Your task to perform on an android device: turn on the 24-hour format for clock Image 0: 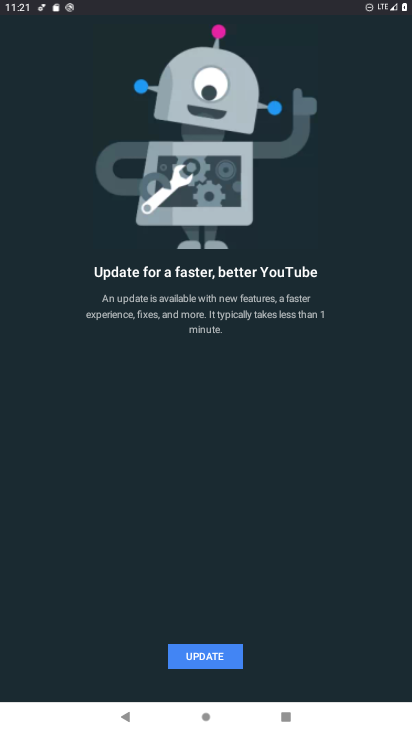
Step 0: drag from (192, 672) to (172, 317)
Your task to perform on an android device: turn on the 24-hour format for clock Image 1: 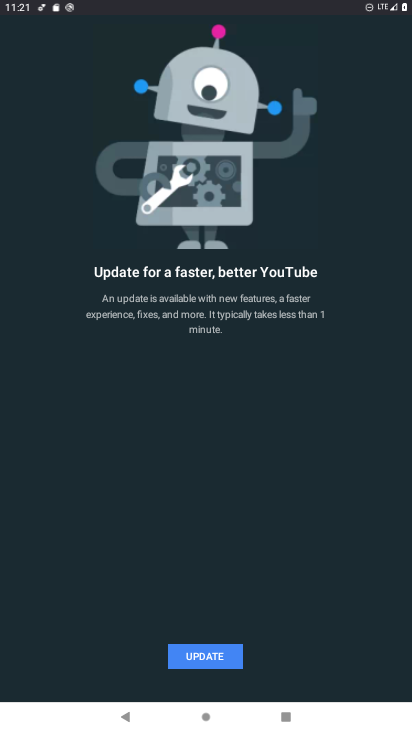
Step 1: press home button
Your task to perform on an android device: turn on the 24-hour format for clock Image 2: 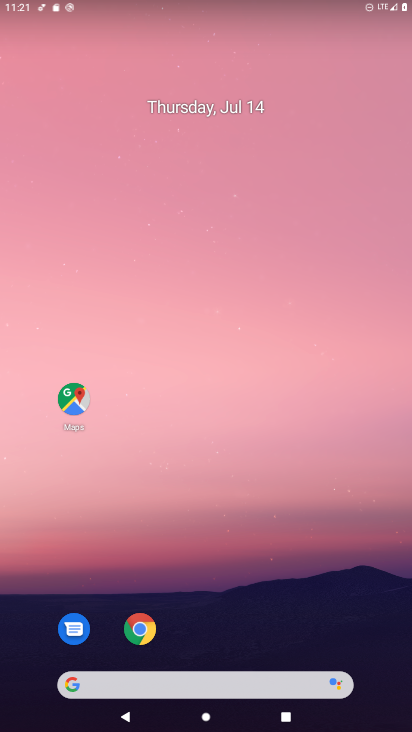
Step 2: drag from (184, 611) to (287, 74)
Your task to perform on an android device: turn on the 24-hour format for clock Image 3: 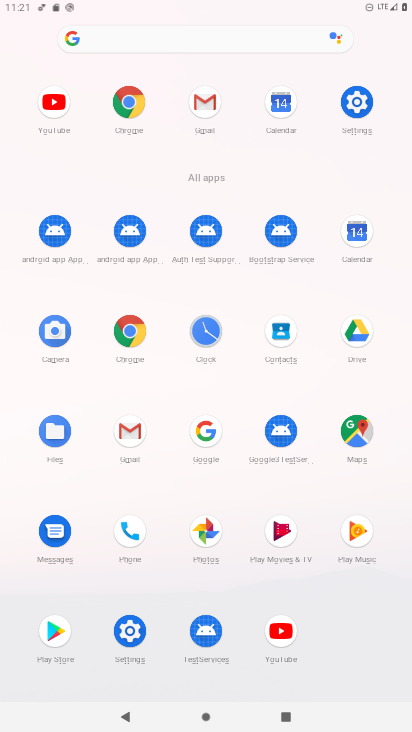
Step 3: click (207, 340)
Your task to perform on an android device: turn on the 24-hour format for clock Image 4: 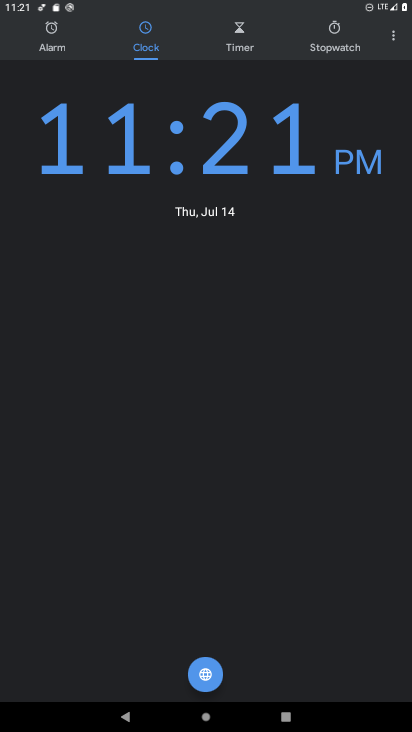
Step 4: click (398, 31)
Your task to perform on an android device: turn on the 24-hour format for clock Image 5: 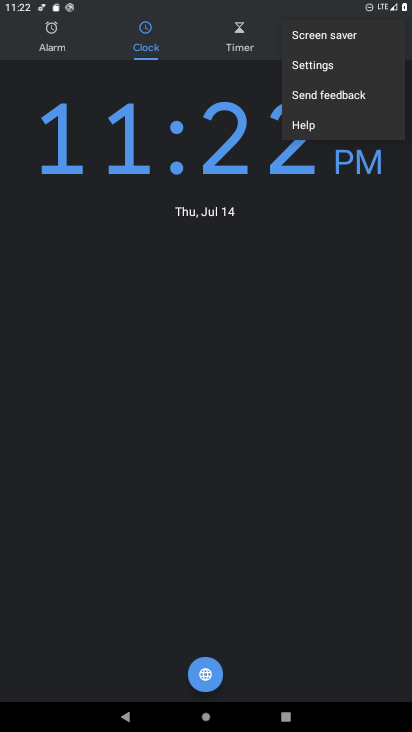
Step 5: click (315, 73)
Your task to perform on an android device: turn on the 24-hour format for clock Image 6: 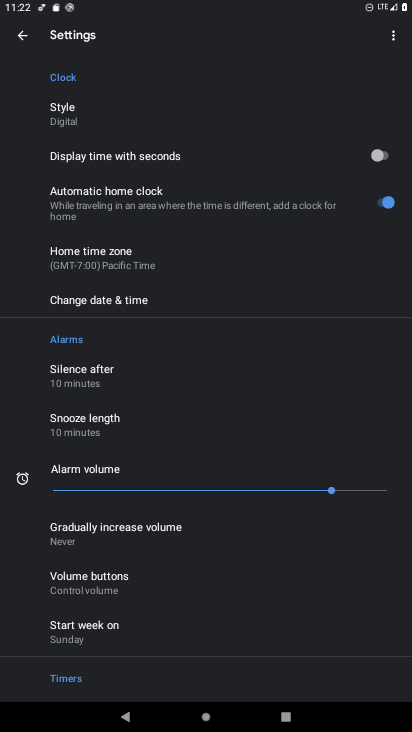
Step 6: click (130, 298)
Your task to perform on an android device: turn on the 24-hour format for clock Image 7: 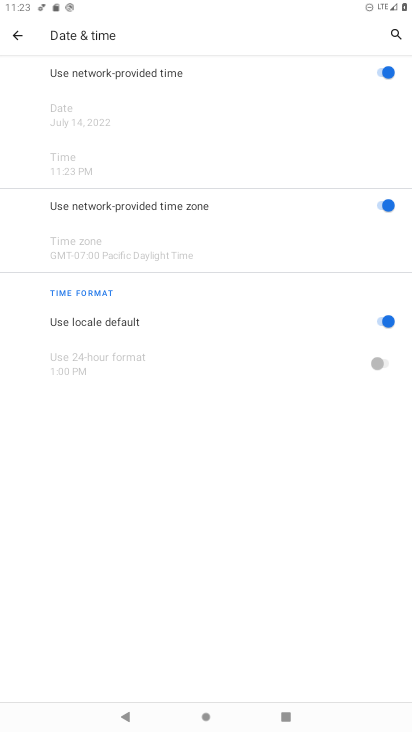
Step 7: task complete